Your task to perform on an android device: toggle show notifications on the lock screen Image 0: 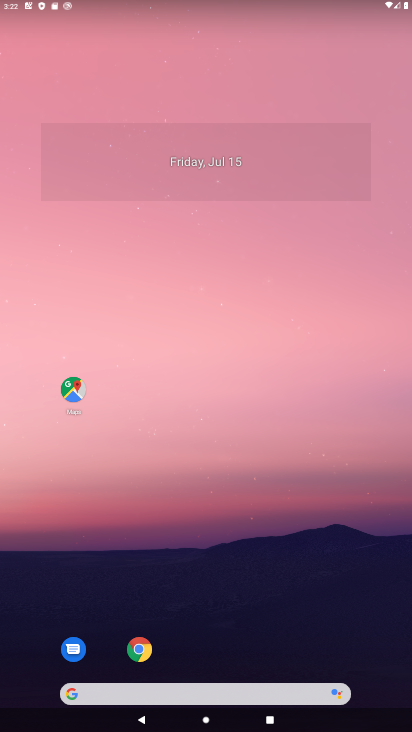
Step 0: drag from (282, 535) to (188, 44)
Your task to perform on an android device: toggle show notifications on the lock screen Image 1: 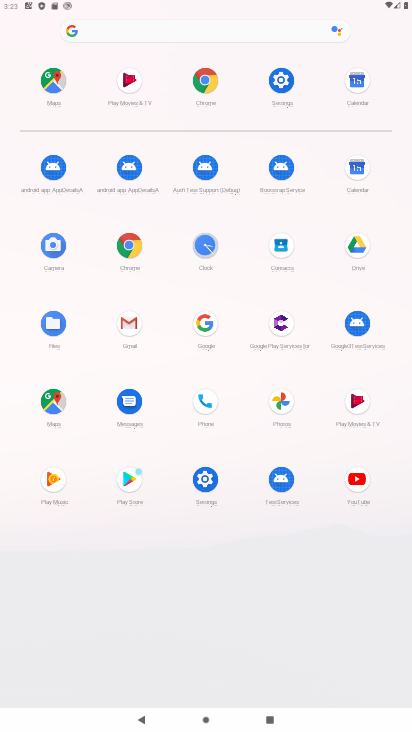
Step 1: click (272, 75)
Your task to perform on an android device: toggle show notifications on the lock screen Image 2: 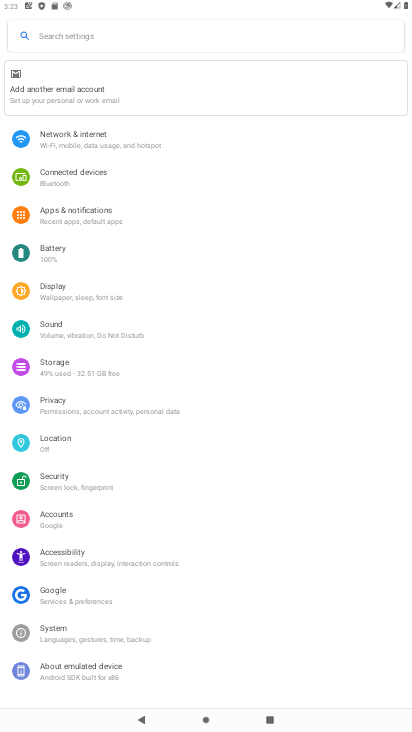
Step 2: click (71, 218)
Your task to perform on an android device: toggle show notifications on the lock screen Image 3: 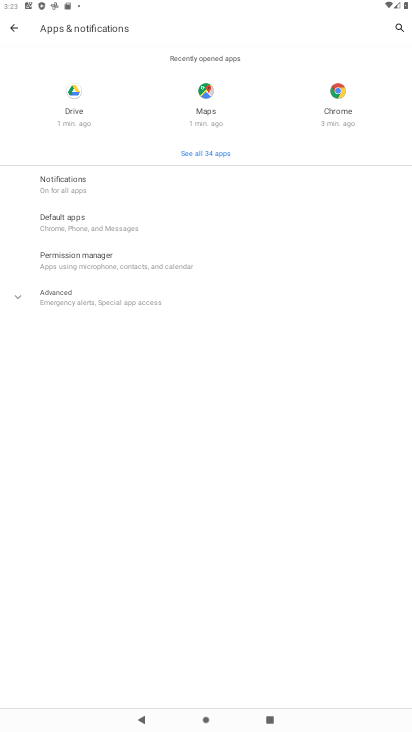
Step 3: click (65, 191)
Your task to perform on an android device: toggle show notifications on the lock screen Image 4: 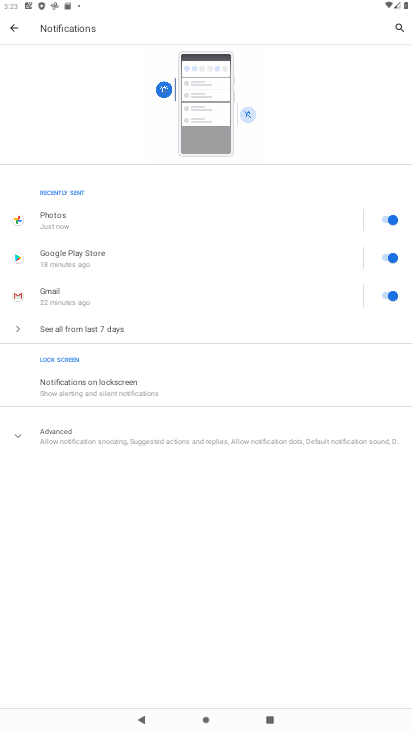
Step 4: click (95, 388)
Your task to perform on an android device: toggle show notifications on the lock screen Image 5: 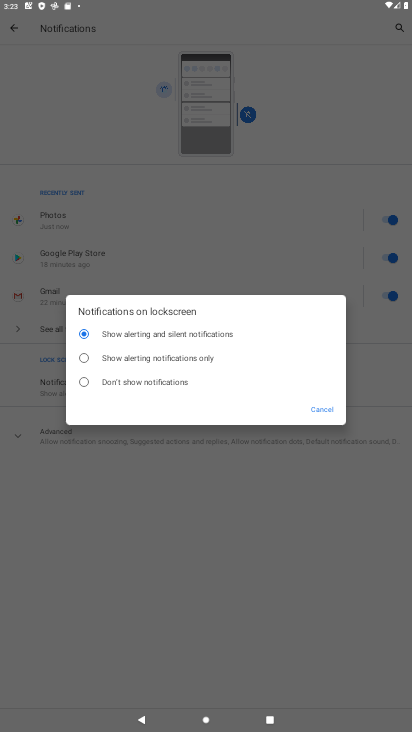
Step 5: click (123, 362)
Your task to perform on an android device: toggle show notifications on the lock screen Image 6: 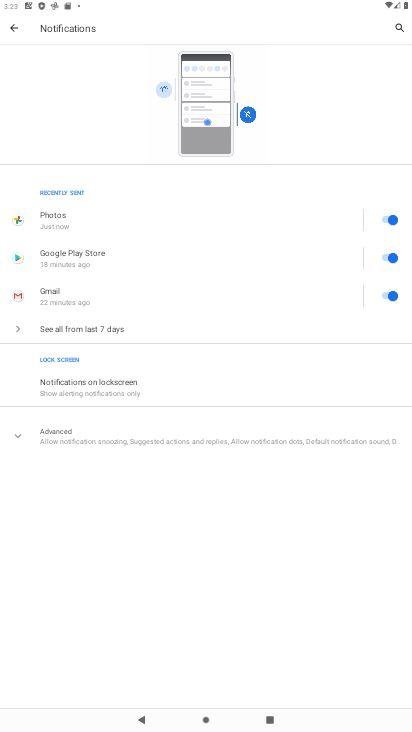
Step 6: task complete